Your task to perform on an android device: Go to Google Image 0: 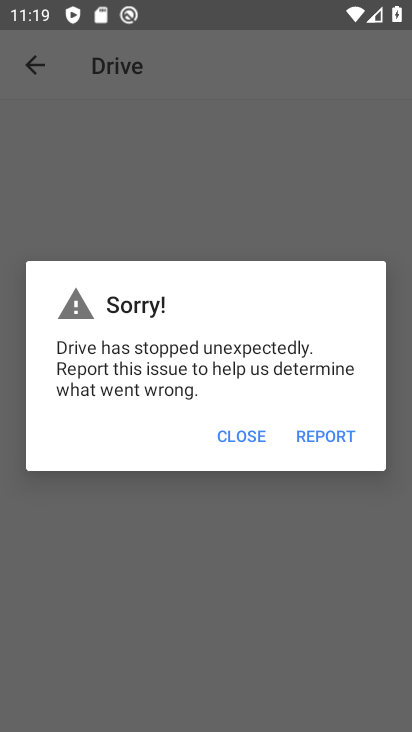
Step 0: drag from (279, 11) to (307, 492)
Your task to perform on an android device: Go to Google Image 1: 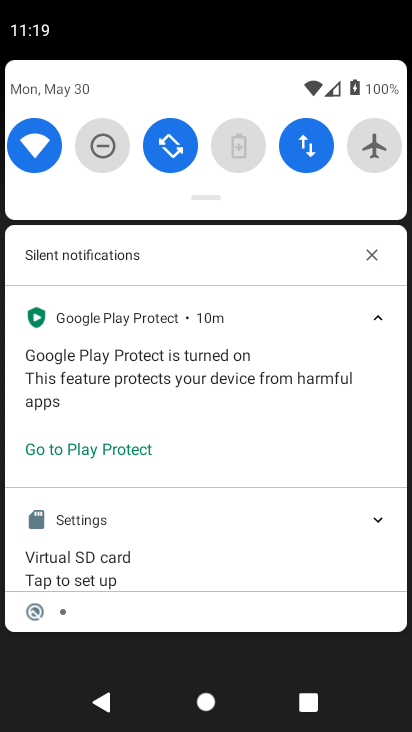
Step 1: press home button
Your task to perform on an android device: Go to Google Image 2: 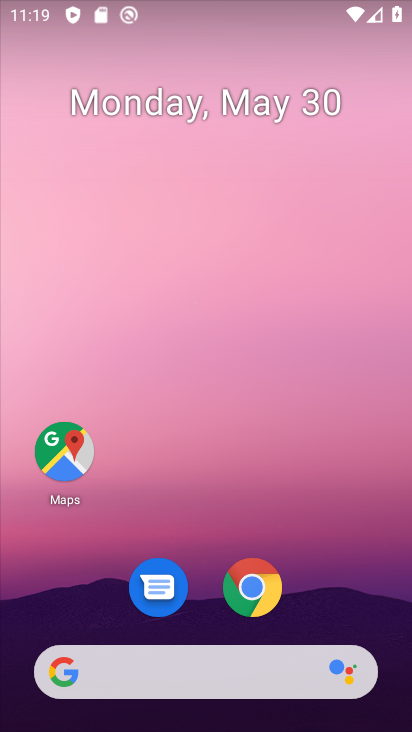
Step 2: click (87, 674)
Your task to perform on an android device: Go to Google Image 3: 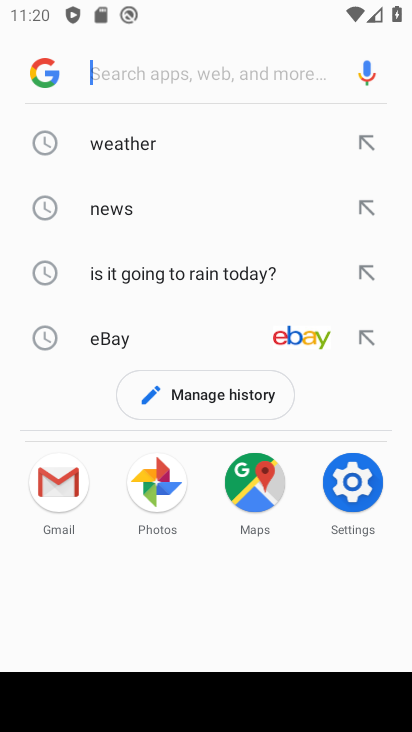
Step 3: task complete